Your task to perform on an android device: Open Reddit.com Image 0: 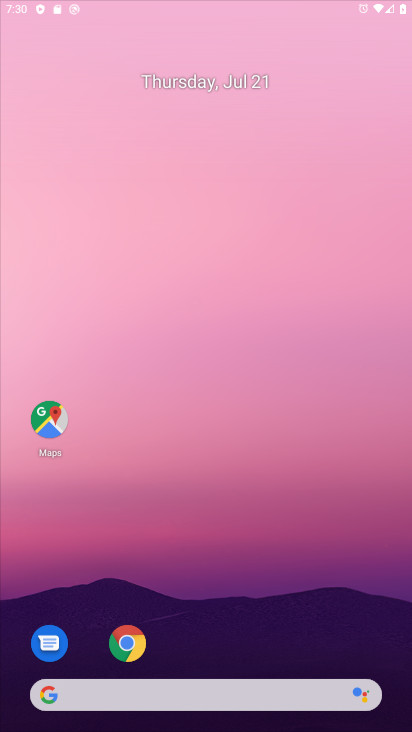
Step 0: click (212, 254)
Your task to perform on an android device: Open Reddit.com Image 1: 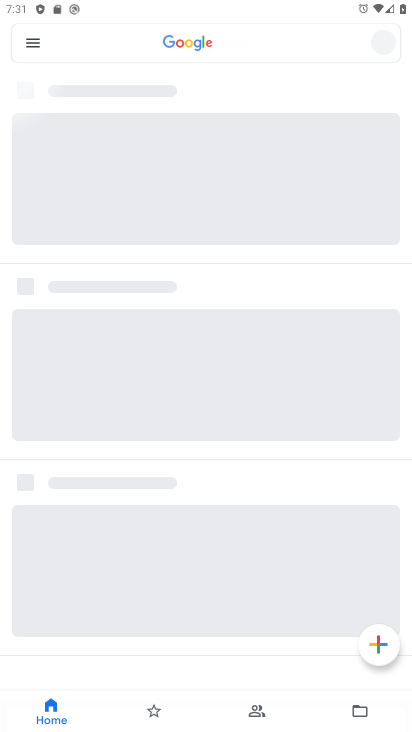
Step 1: drag from (245, 648) to (239, 558)
Your task to perform on an android device: Open Reddit.com Image 2: 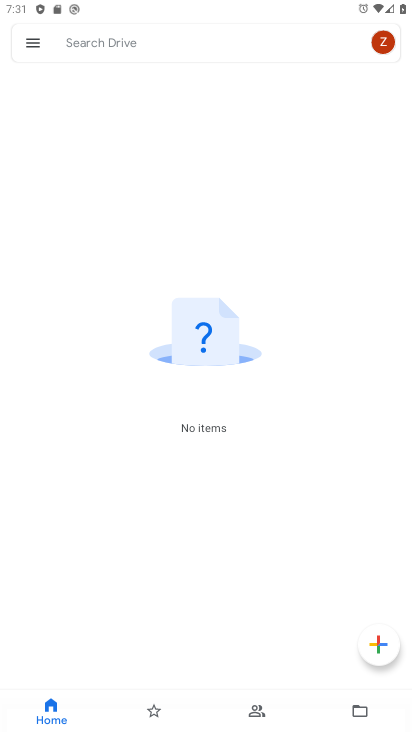
Step 2: press home button
Your task to perform on an android device: Open Reddit.com Image 3: 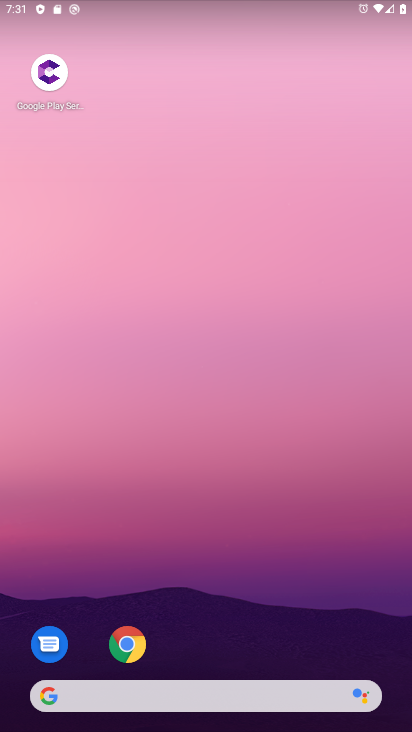
Step 3: click (114, 637)
Your task to perform on an android device: Open Reddit.com Image 4: 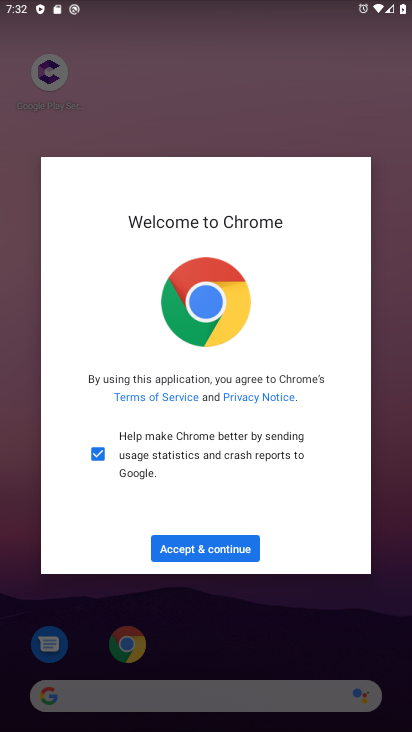
Step 4: click (208, 540)
Your task to perform on an android device: Open Reddit.com Image 5: 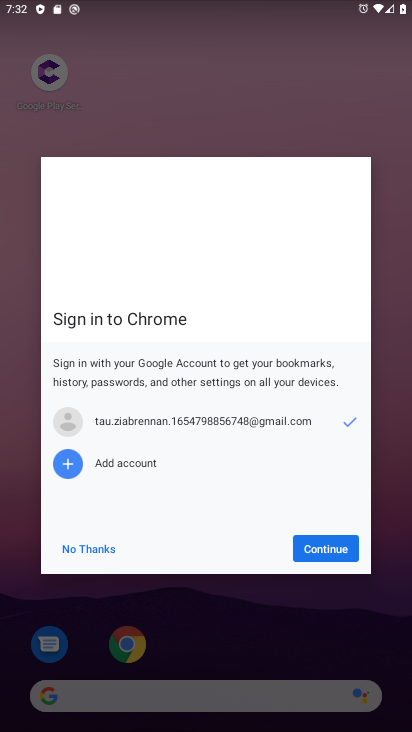
Step 5: click (309, 537)
Your task to perform on an android device: Open Reddit.com Image 6: 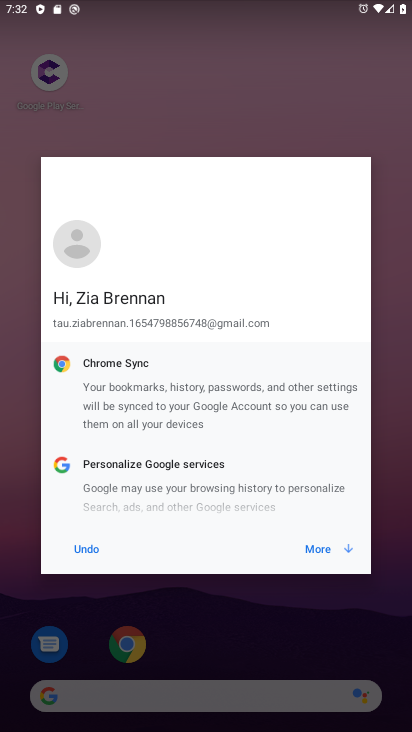
Step 6: click (308, 543)
Your task to perform on an android device: Open Reddit.com Image 7: 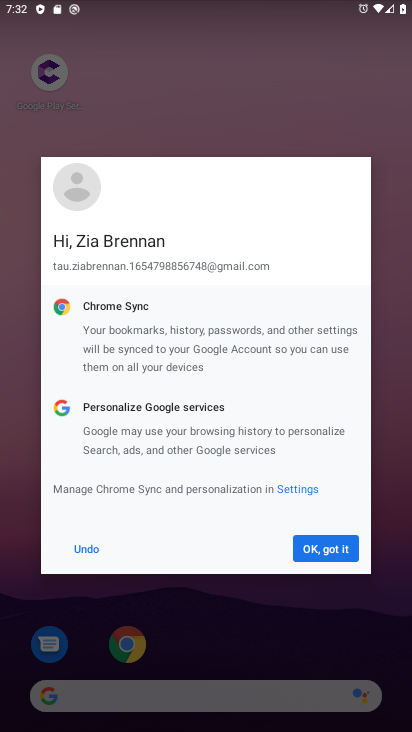
Step 7: click (308, 547)
Your task to perform on an android device: Open Reddit.com Image 8: 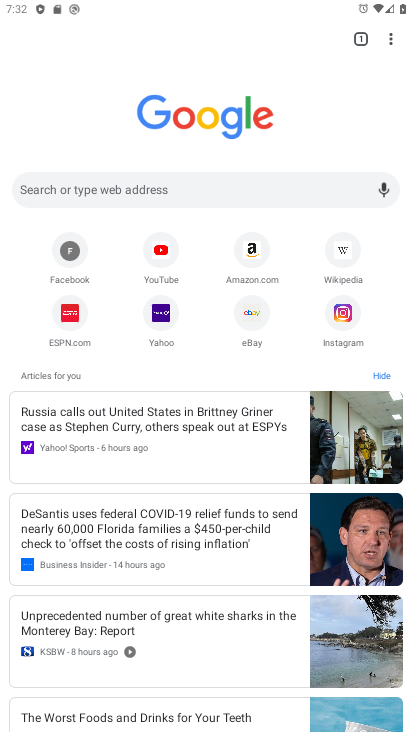
Step 8: click (170, 179)
Your task to perform on an android device: Open Reddit.com Image 9: 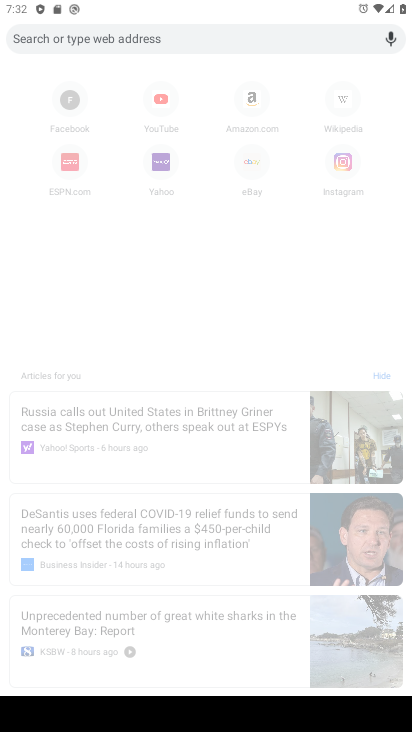
Step 9: type "Open Reddit.com "
Your task to perform on an android device: Open Reddit.com Image 10: 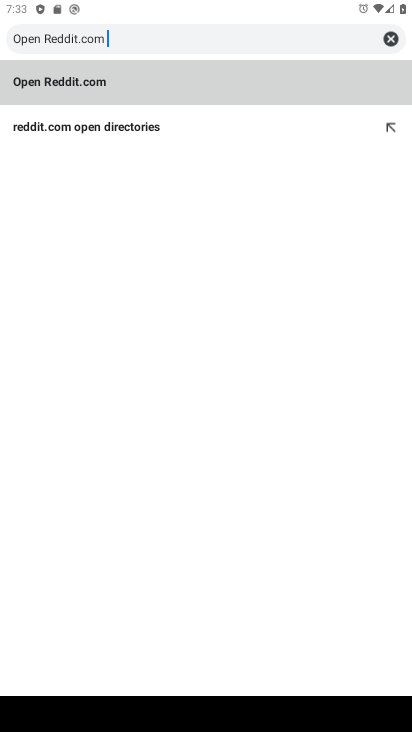
Step 10: click (150, 70)
Your task to perform on an android device: Open Reddit.com Image 11: 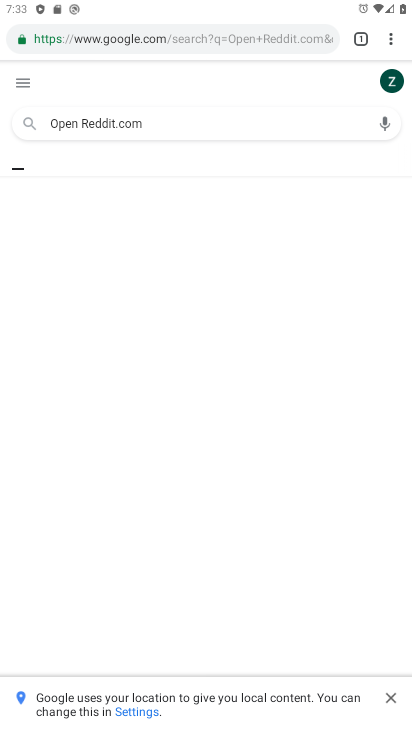
Step 11: task complete